Your task to perform on an android device: open the mobile data screen to see how much data has been used Image 0: 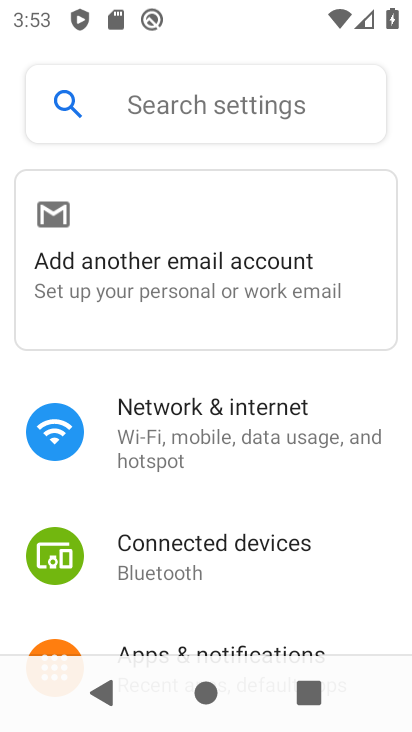
Step 0: click (225, 441)
Your task to perform on an android device: open the mobile data screen to see how much data has been used Image 1: 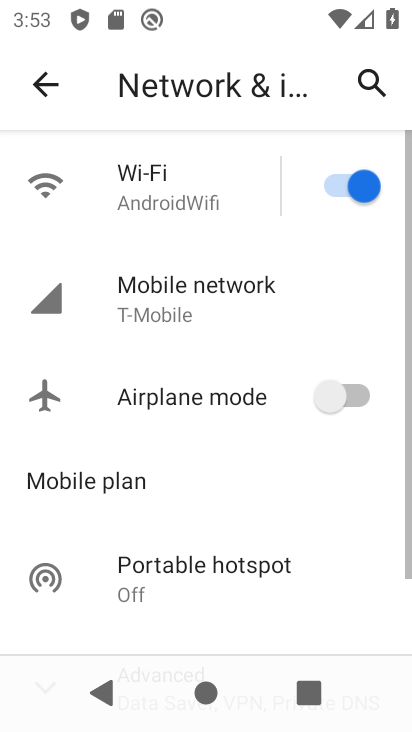
Step 1: click (221, 263)
Your task to perform on an android device: open the mobile data screen to see how much data has been used Image 2: 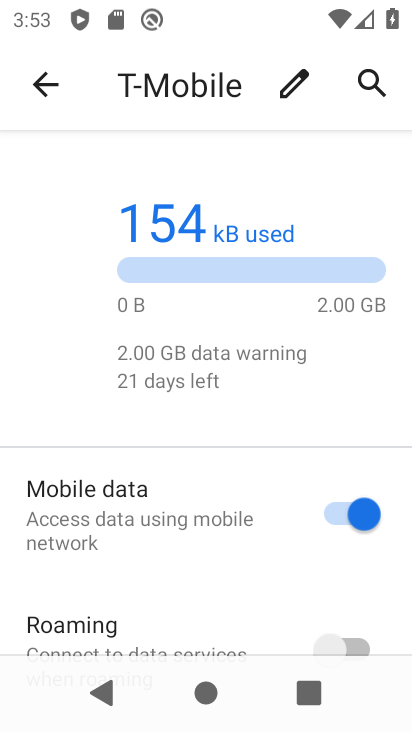
Step 2: task complete